Your task to perform on an android device: Is it going to rain this weekend? Image 0: 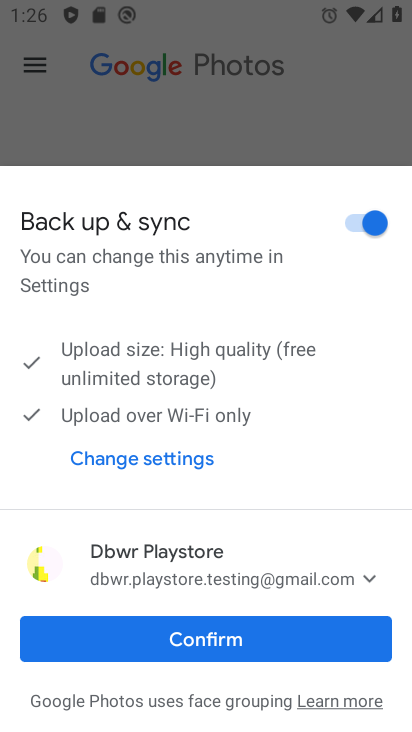
Step 0: click (319, 639)
Your task to perform on an android device: Is it going to rain this weekend? Image 1: 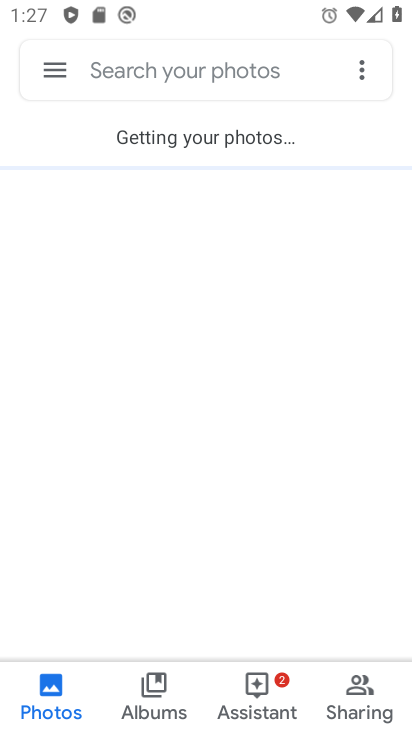
Step 1: press home button
Your task to perform on an android device: Is it going to rain this weekend? Image 2: 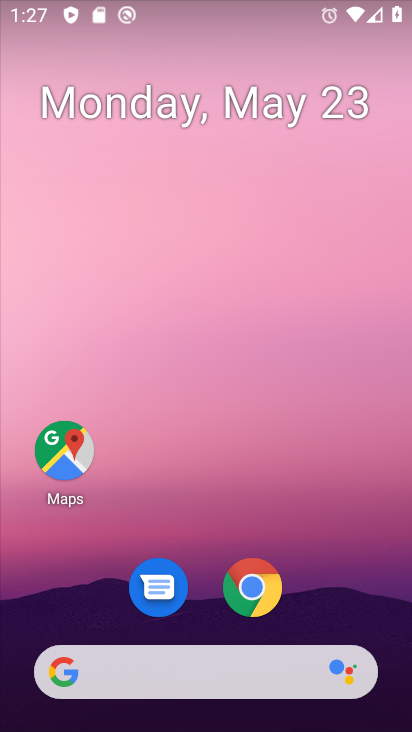
Step 2: drag from (353, 575) to (354, 196)
Your task to perform on an android device: Is it going to rain this weekend? Image 3: 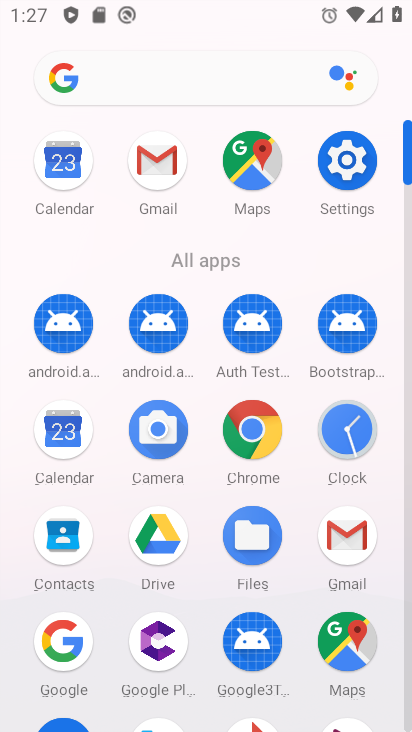
Step 3: click (92, 77)
Your task to perform on an android device: Is it going to rain this weekend? Image 4: 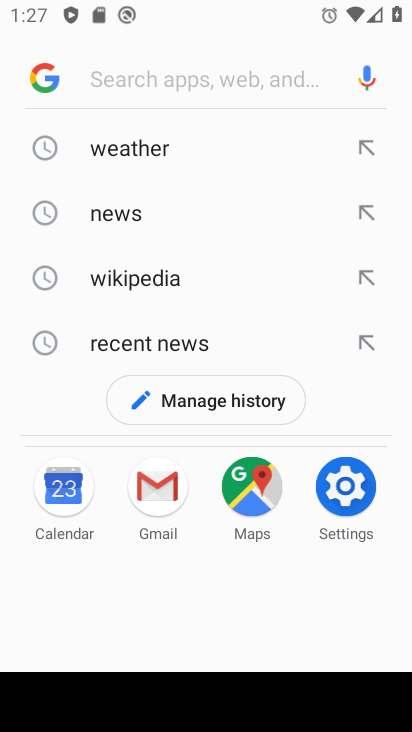
Step 4: click (146, 139)
Your task to perform on an android device: Is it going to rain this weekend? Image 5: 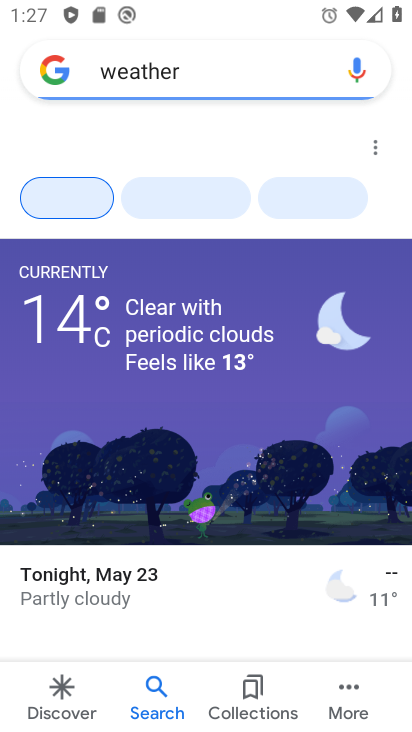
Step 5: task complete